Your task to perform on an android device: Open settings Image 0: 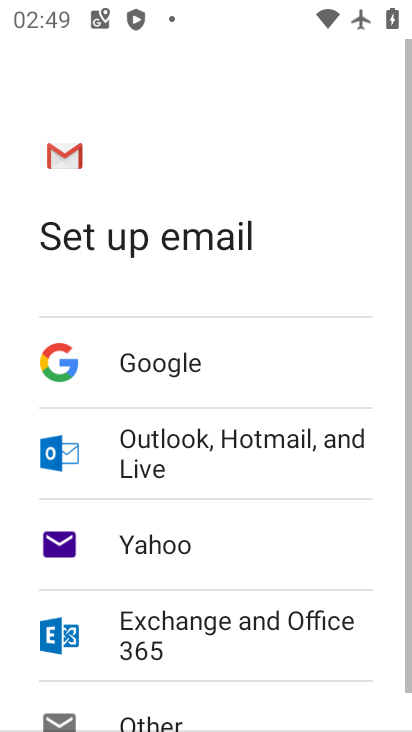
Step 0: press home button
Your task to perform on an android device: Open settings Image 1: 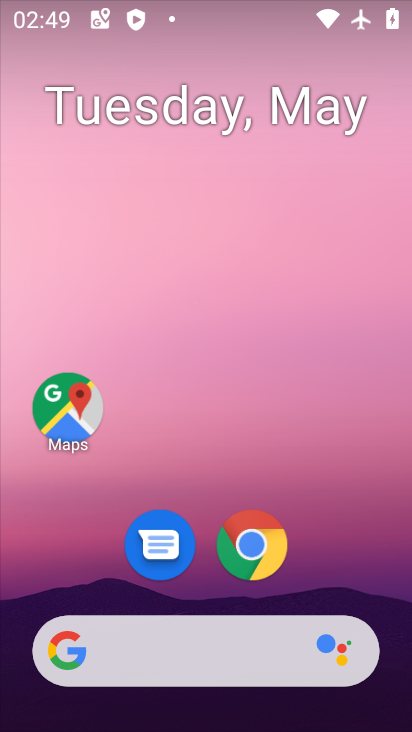
Step 1: drag from (397, 626) to (304, 183)
Your task to perform on an android device: Open settings Image 2: 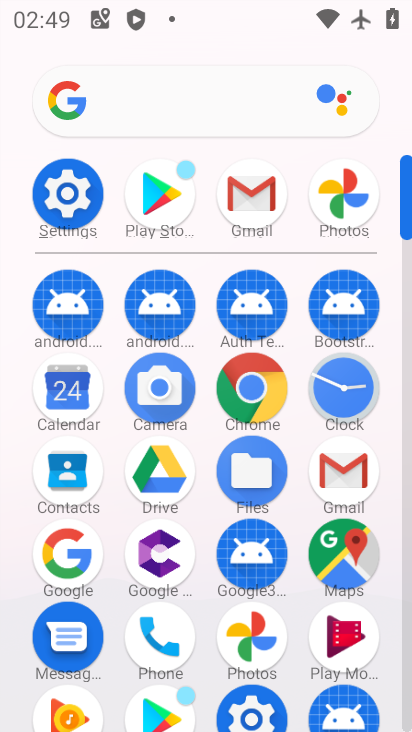
Step 2: click (408, 716)
Your task to perform on an android device: Open settings Image 3: 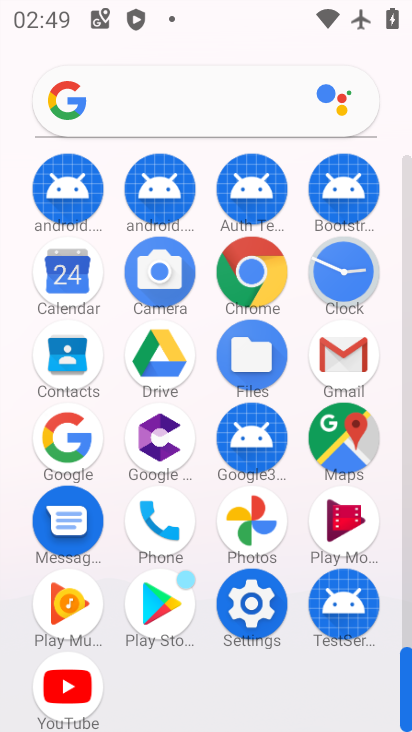
Step 3: click (250, 601)
Your task to perform on an android device: Open settings Image 4: 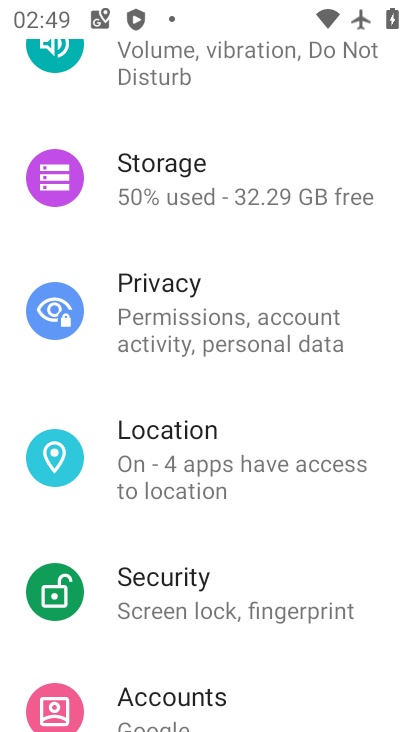
Step 4: task complete